Your task to perform on an android device: check android version Image 0: 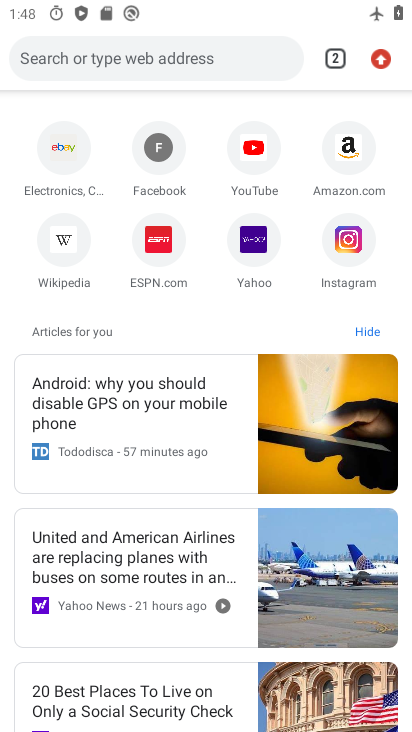
Step 0: press home button
Your task to perform on an android device: check android version Image 1: 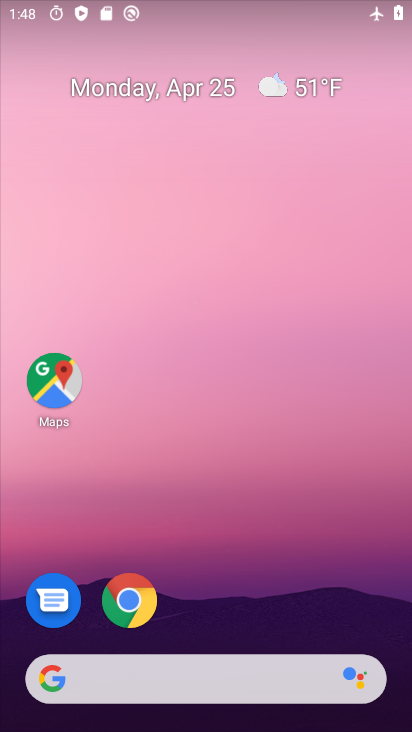
Step 1: drag from (190, 679) to (283, 276)
Your task to perform on an android device: check android version Image 2: 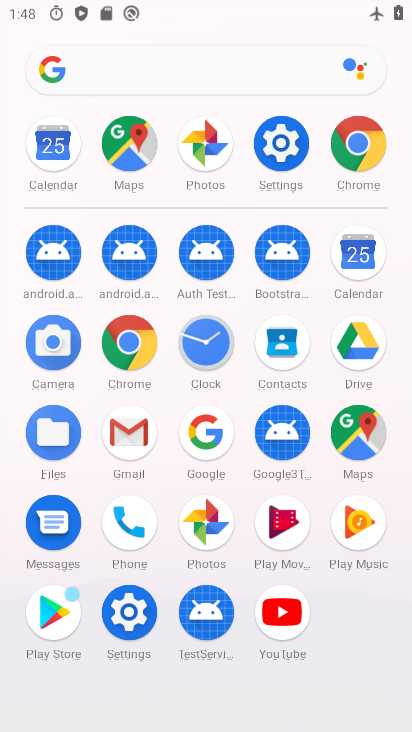
Step 2: drag from (212, 429) to (228, 175)
Your task to perform on an android device: check android version Image 3: 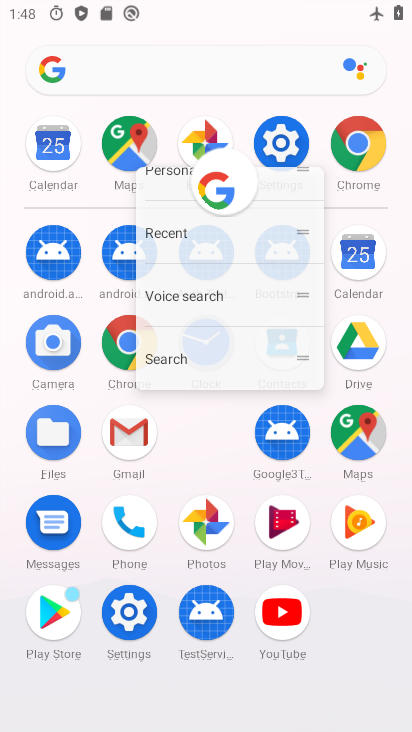
Step 3: click (253, 115)
Your task to perform on an android device: check android version Image 4: 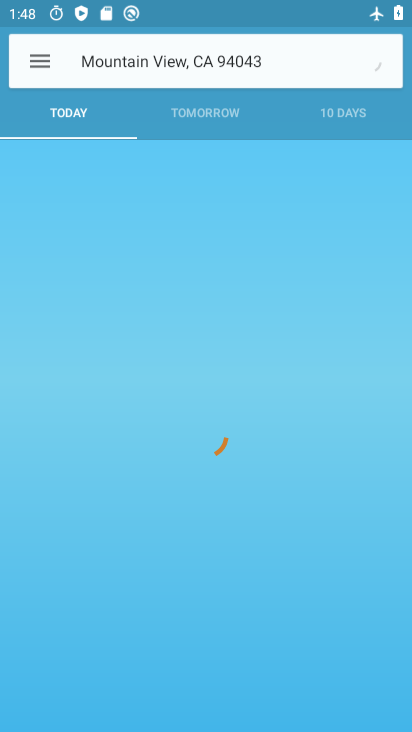
Step 4: click (208, 178)
Your task to perform on an android device: check android version Image 5: 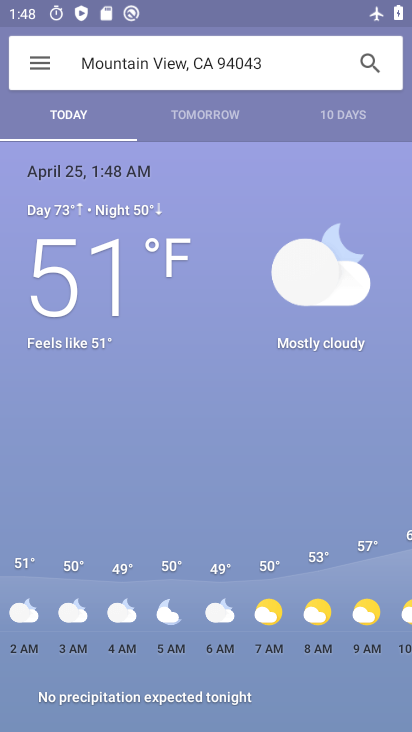
Step 5: press home button
Your task to perform on an android device: check android version Image 6: 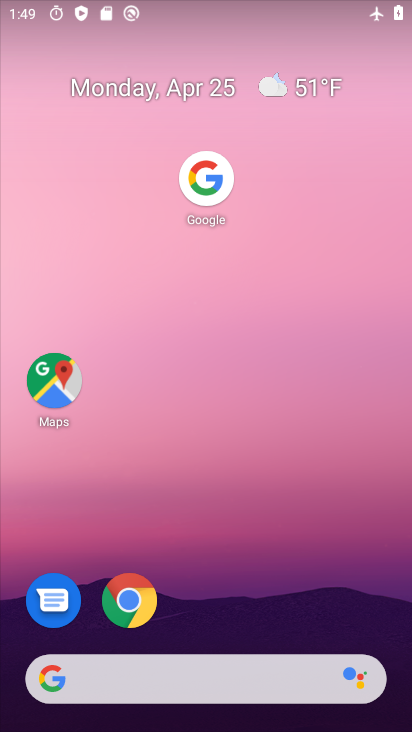
Step 6: click (209, 182)
Your task to perform on an android device: check android version Image 7: 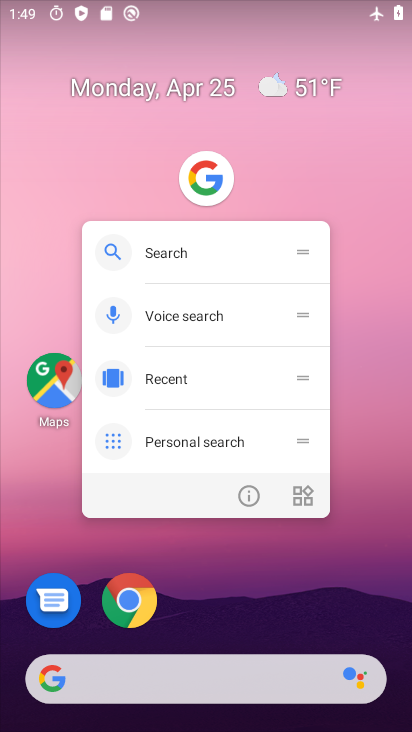
Step 7: click (203, 183)
Your task to perform on an android device: check android version Image 8: 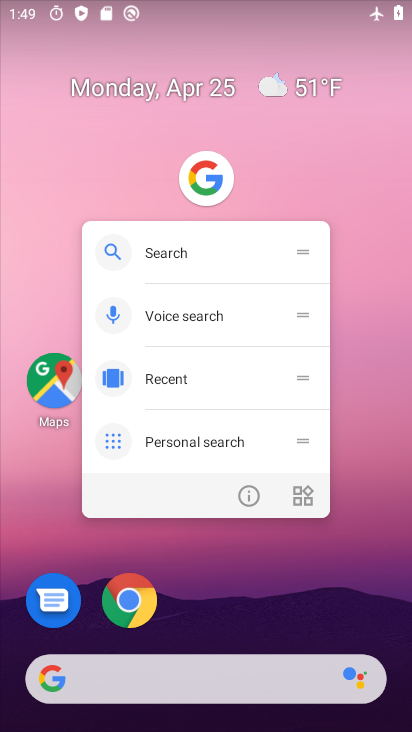
Step 8: click (212, 190)
Your task to perform on an android device: check android version Image 9: 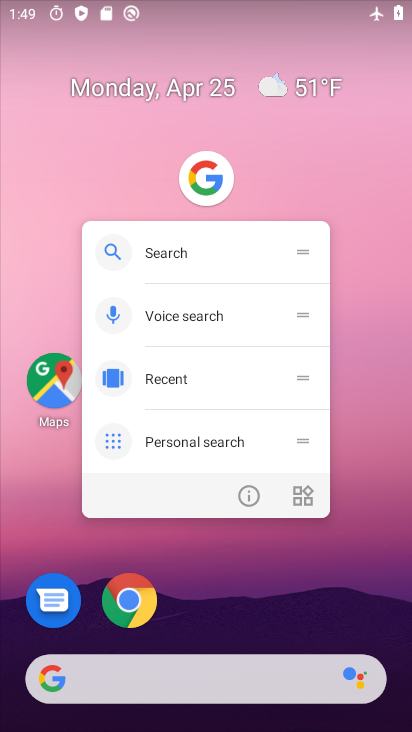
Step 9: click (214, 188)
Your task to perform on an android device: check android version Image 10: 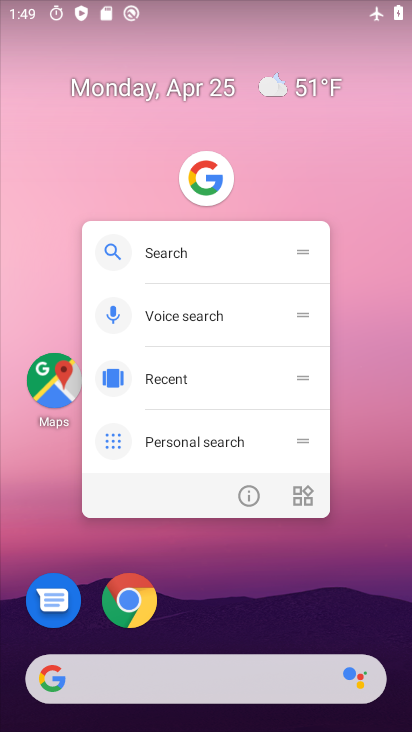
Step 10: click (216, 177)
Your task to perform on an android device: check android version Image 11: 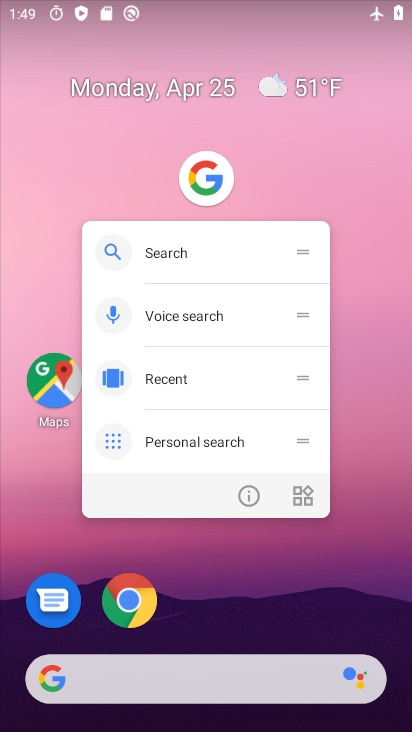
Step 11: click (212, 174)
Your task to perform on an android device: check android version Image 12: 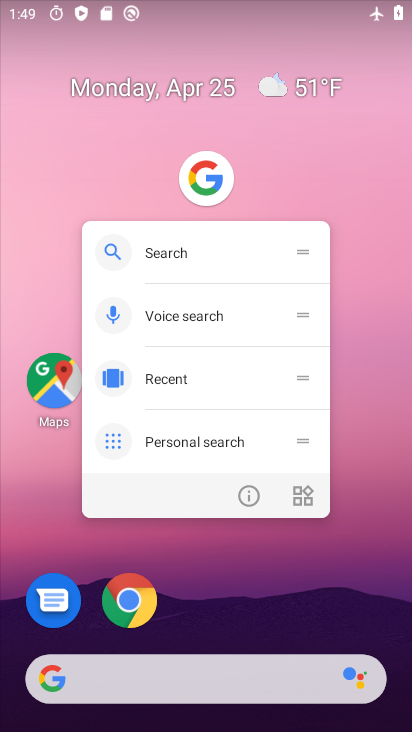
Step 12: click (242, 497)
Your task to perform on an android device: check android version Image 13: 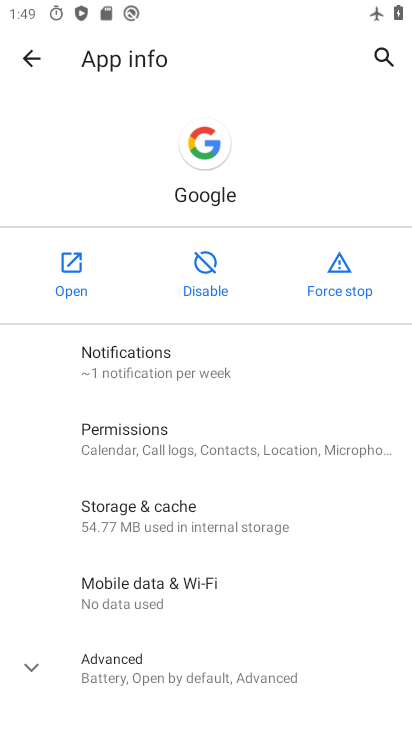
Step 13: drag from (176, 595) to (350, 29)
Your task to perform on an android device: check android version Image 14: 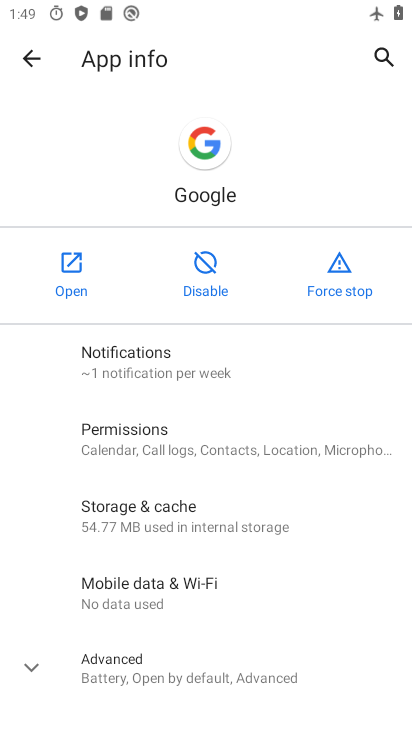
Step 14: click (114, 658)
Your task to perform on an android device: check android version Image 15: 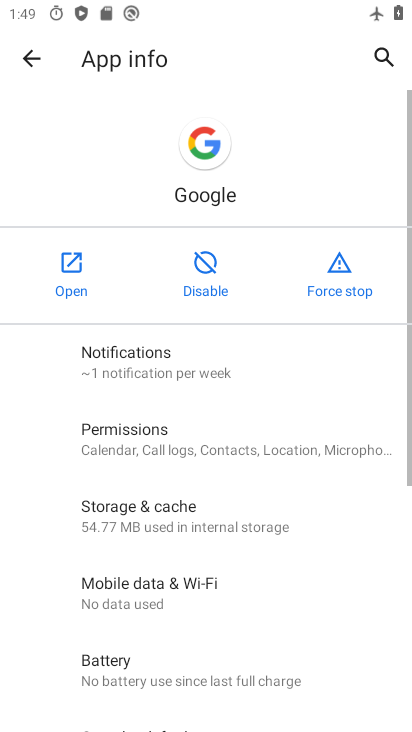
Step 15: task complete